Your task to perform on an android device: What's on my calendar today? Image 0: 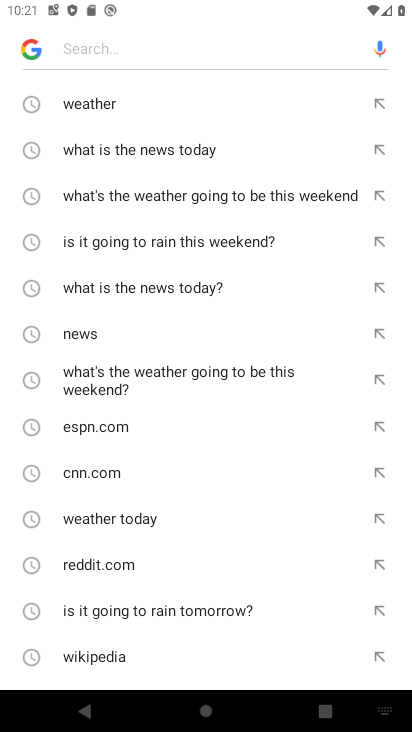
Step 0: press home button
Your task to perform on an android device: What's on my calendar today? Image 1: 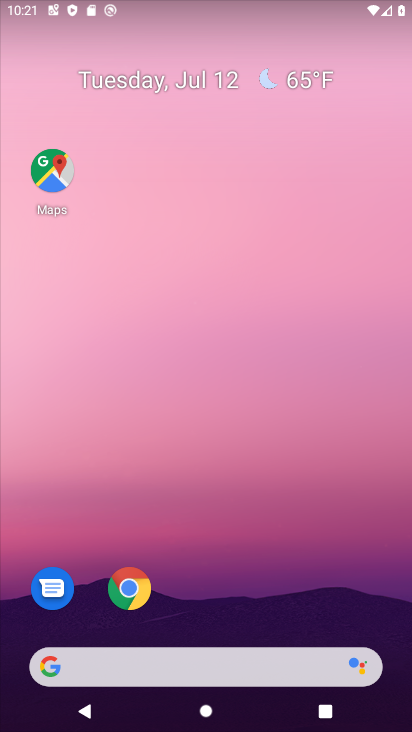
Step 1: drag from (30, 707) to (150, 208)
Your task to perform on an android device: What's on my calendar today? Image 2: 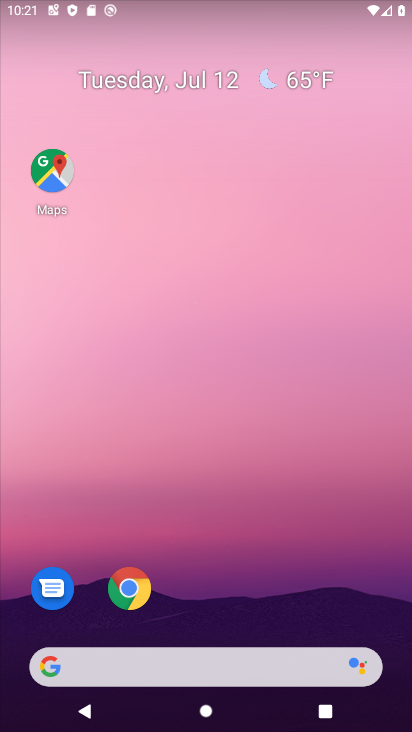
Step 2: drag from (41, 699) to (227, 22)
Your task to perform on an android device: What's on my calendar today? Image 3: 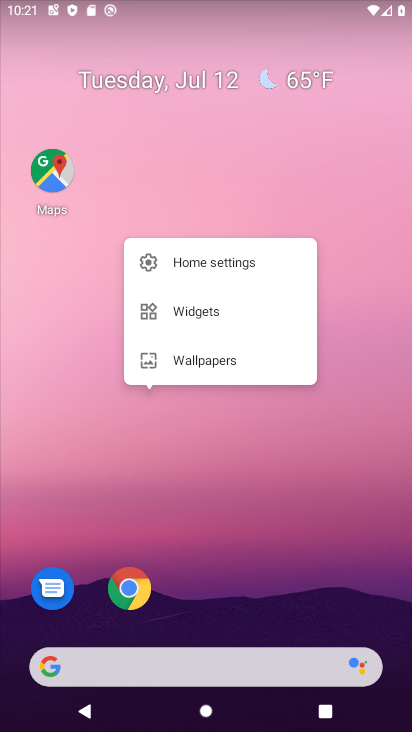
Step 3: drag from (42, 706) to (186, 70)
Your task to perform on an android device: What's on my calendar today? Image 4: 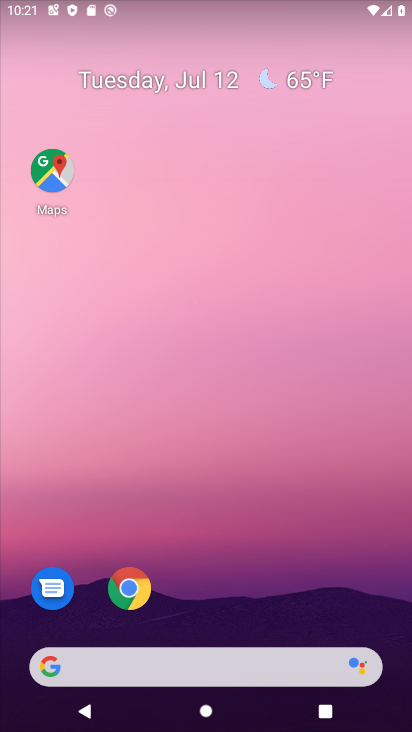
Step 4: drag from (118, 333) to (284, 4)
Your task to perform on an android device: What's on my calendar today? Image 5: 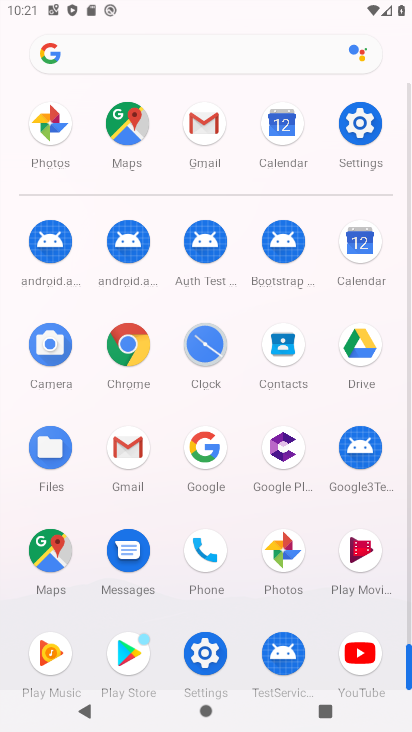
Step 5: click (364, 260)
Your task to perform on an android device: What's on my calendar today? Image 6: 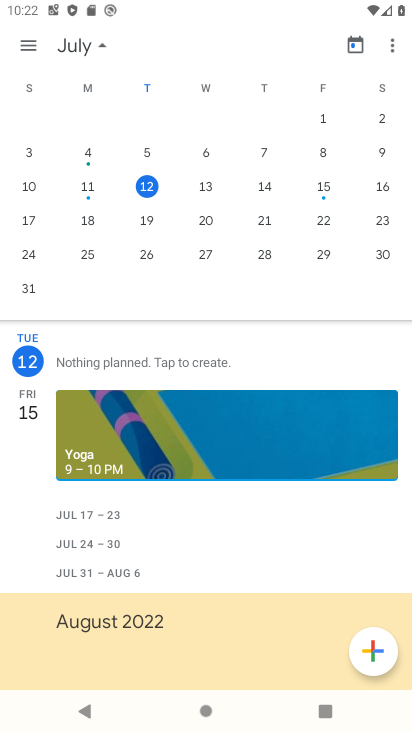
Step 6: click (28, 43)
Your task to perform on an android device: What's on my calendar today? Image 7: 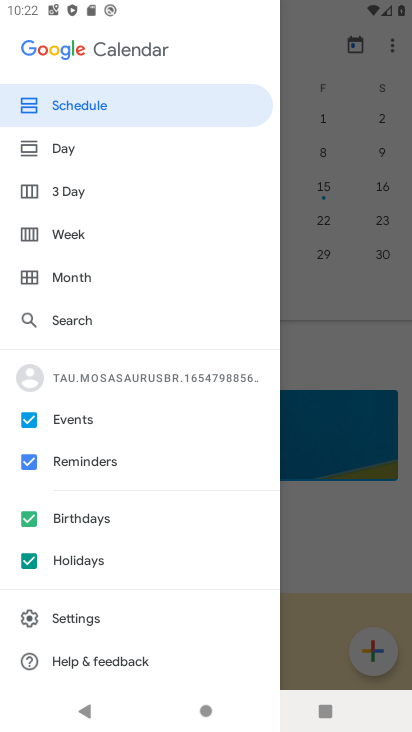
Step 7: task complete